Your task to perform on an android device: open app "Google Home" (install if not already installed) Image 0: 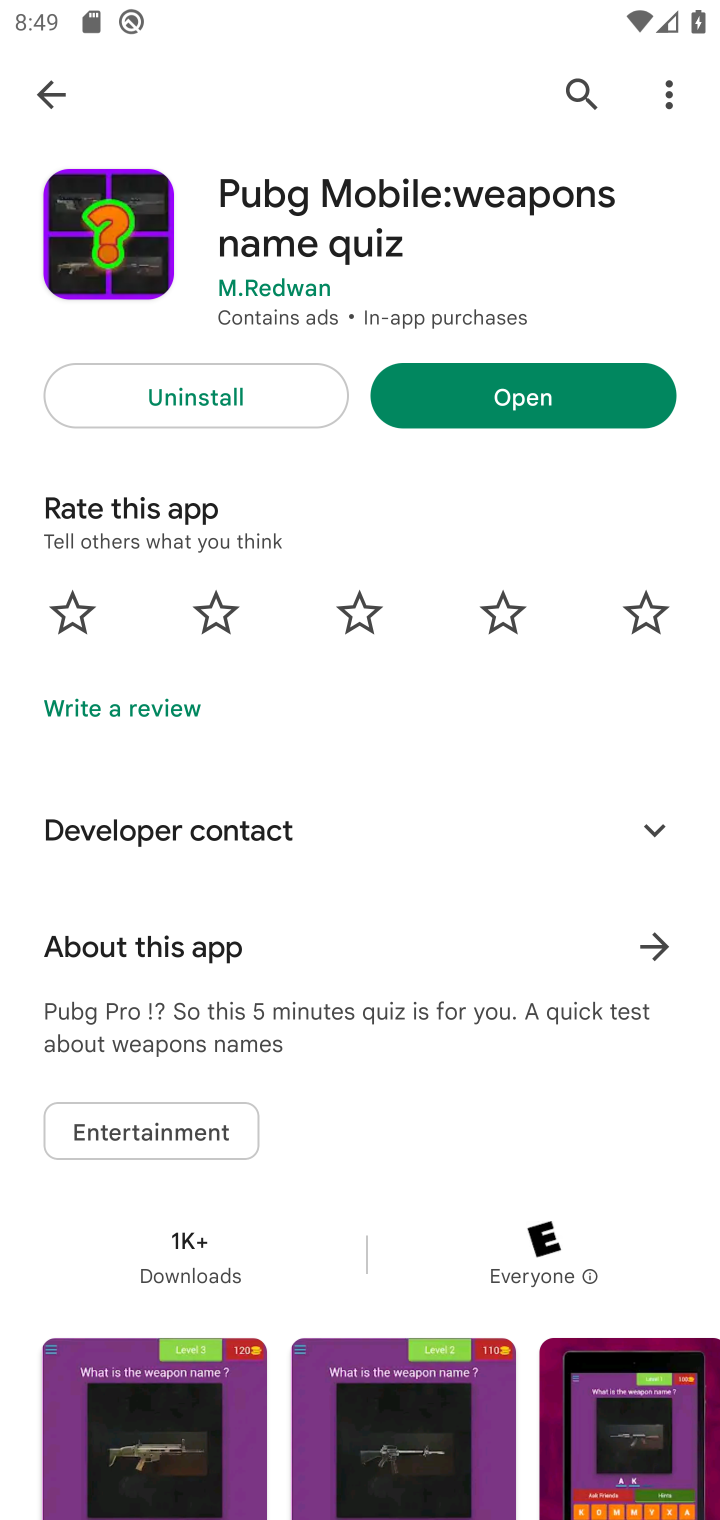
Step 0: press home button
Your task to perform on an android device: open app "Google Home" (install if not already installed) Image 1: 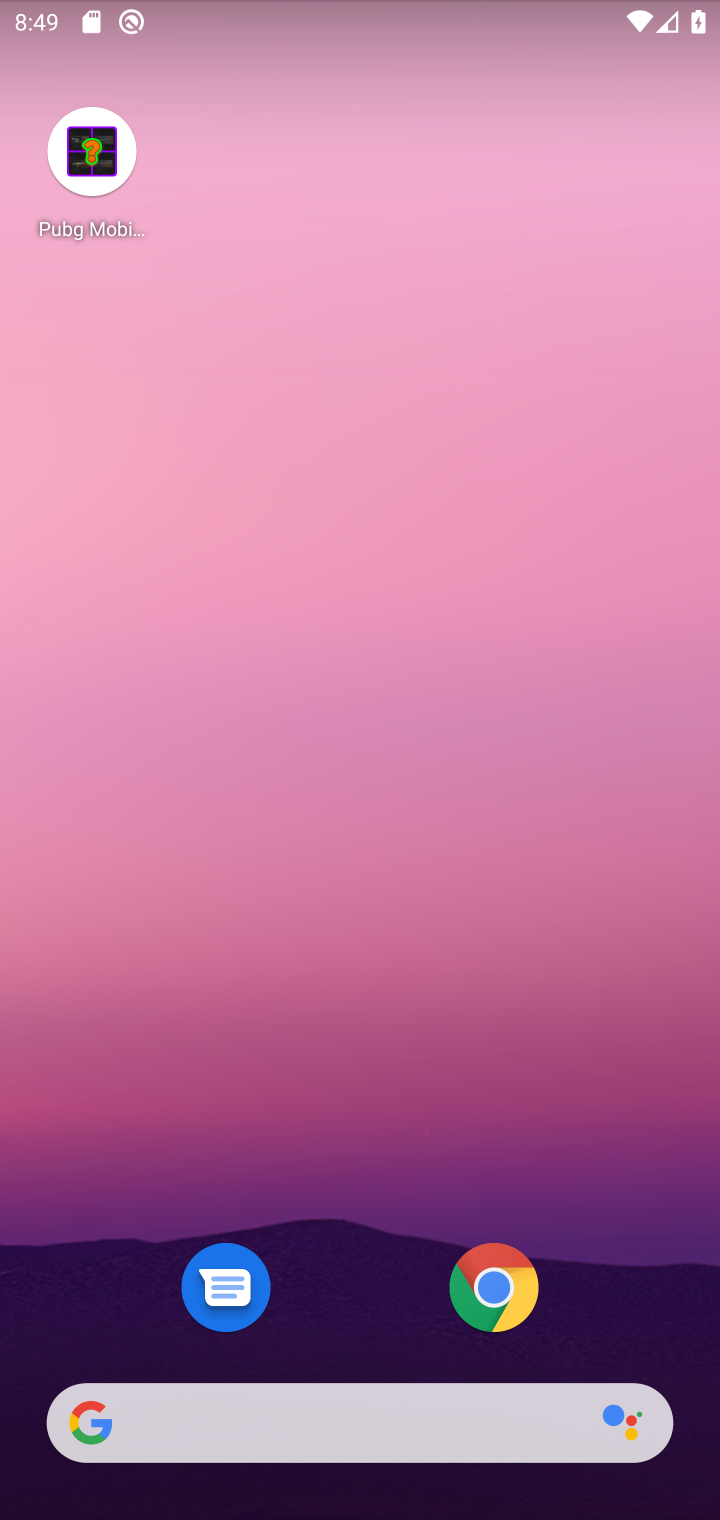
Step 1: press home button
Your task to perform on an android device: open app "Google Home" (install if not already installed) Image 2: 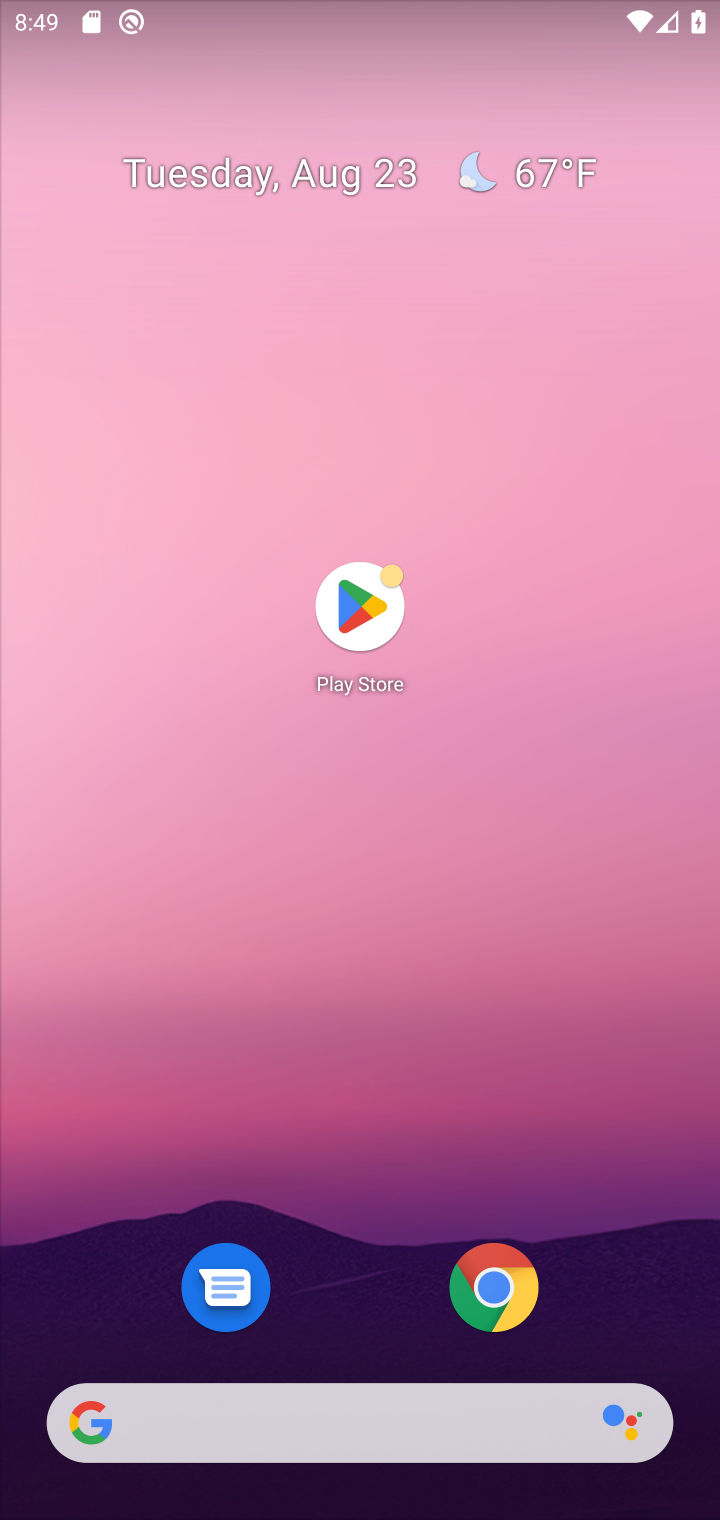
Step 2: click (353, 612)
Your task to perform on an android device: open app "Google Home" (install if not already installed) Image 3: 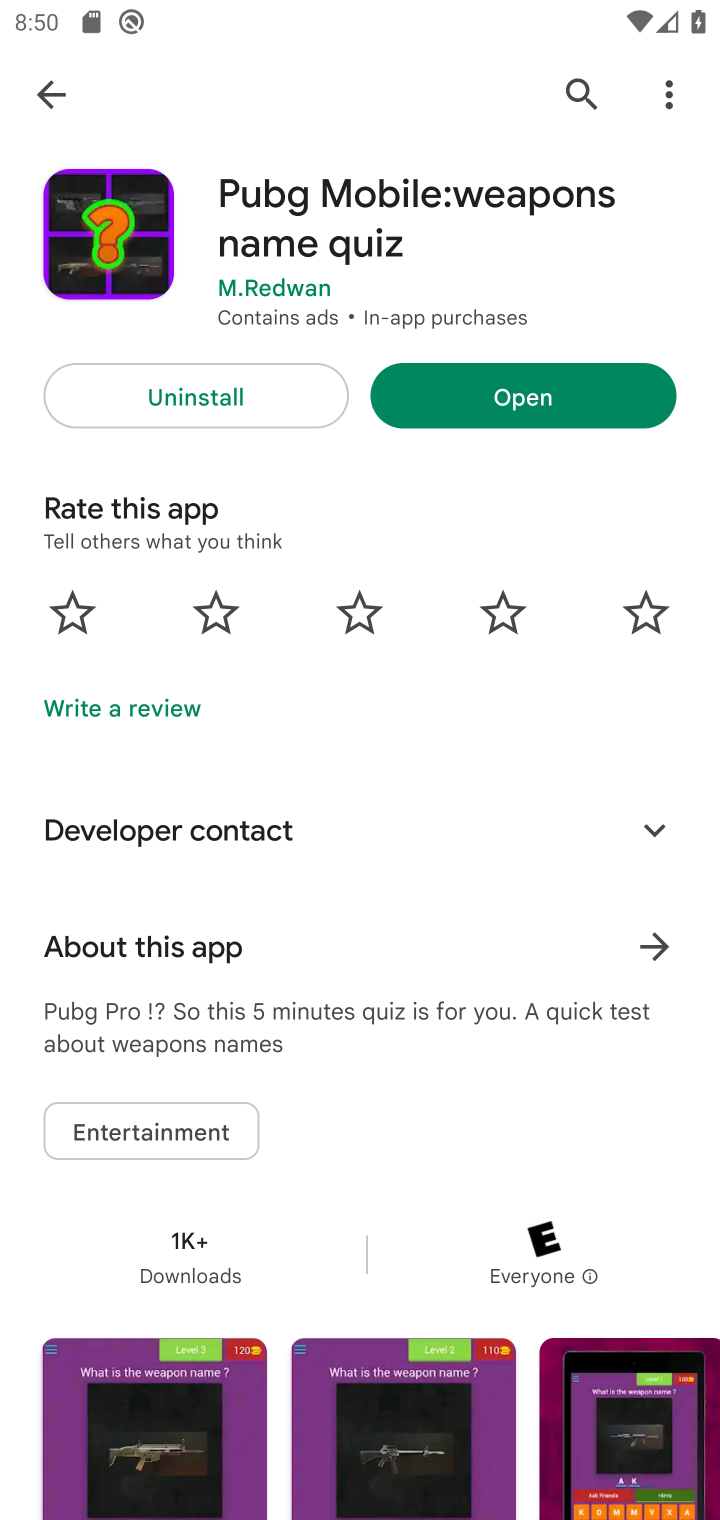
Step 3: click (576, 87)
Your task to perform on an android device: open app "Google Home" (install if not already installed) Image 4: 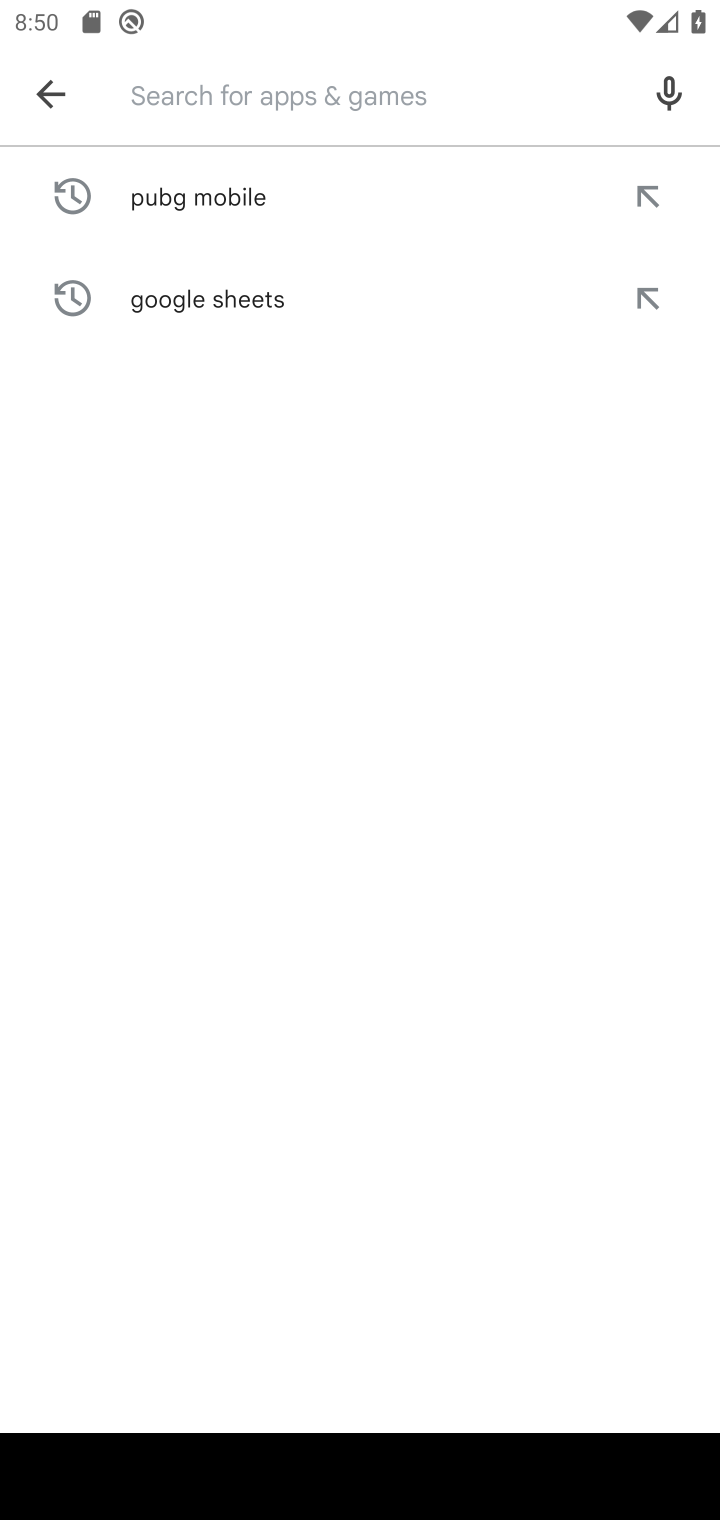
Step 4: type "Google Home"
Your task to perform on an android device: open app "Google Home" (install if not already installed) Image 5: 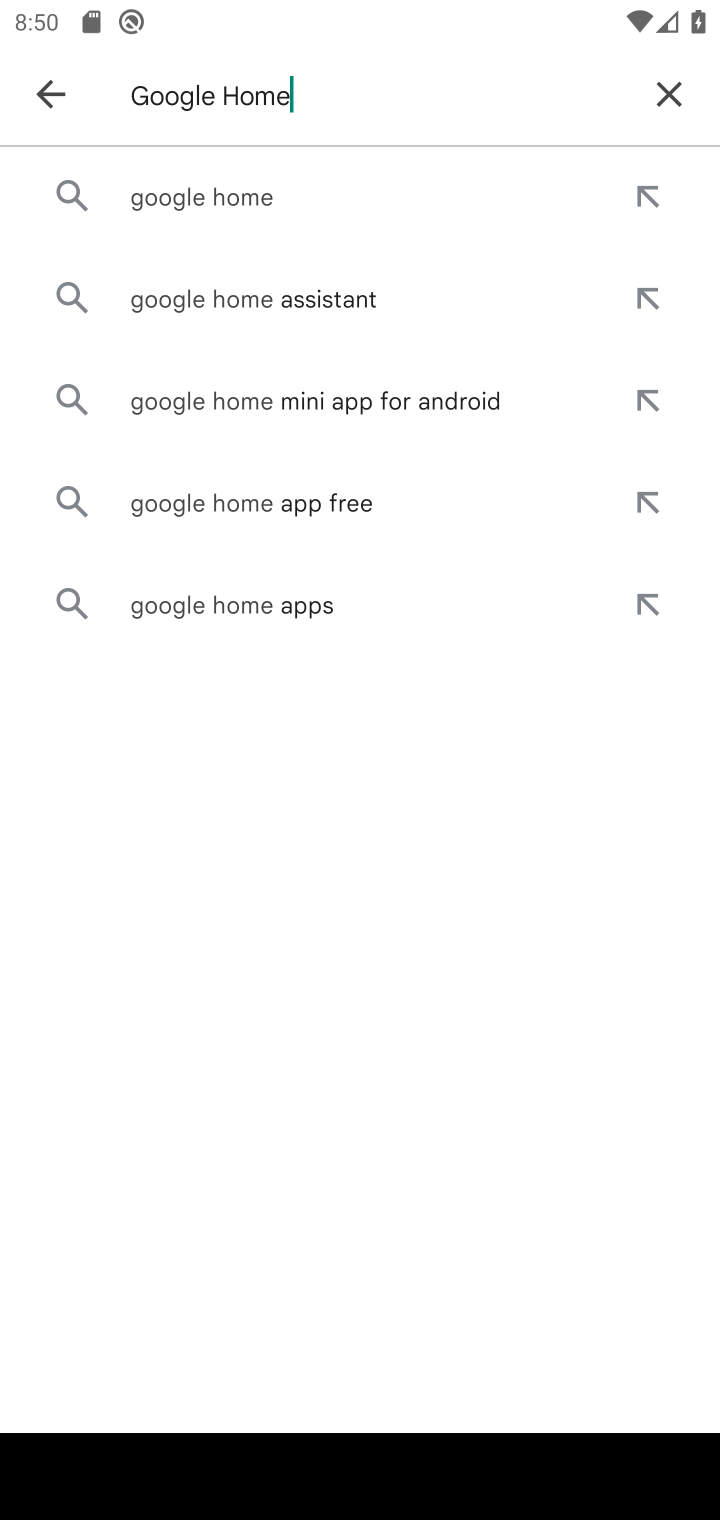
Step 5: click (263, 196)
Your task to perform on an android device: open app "Google Home" (install if not already installed) Image 6: 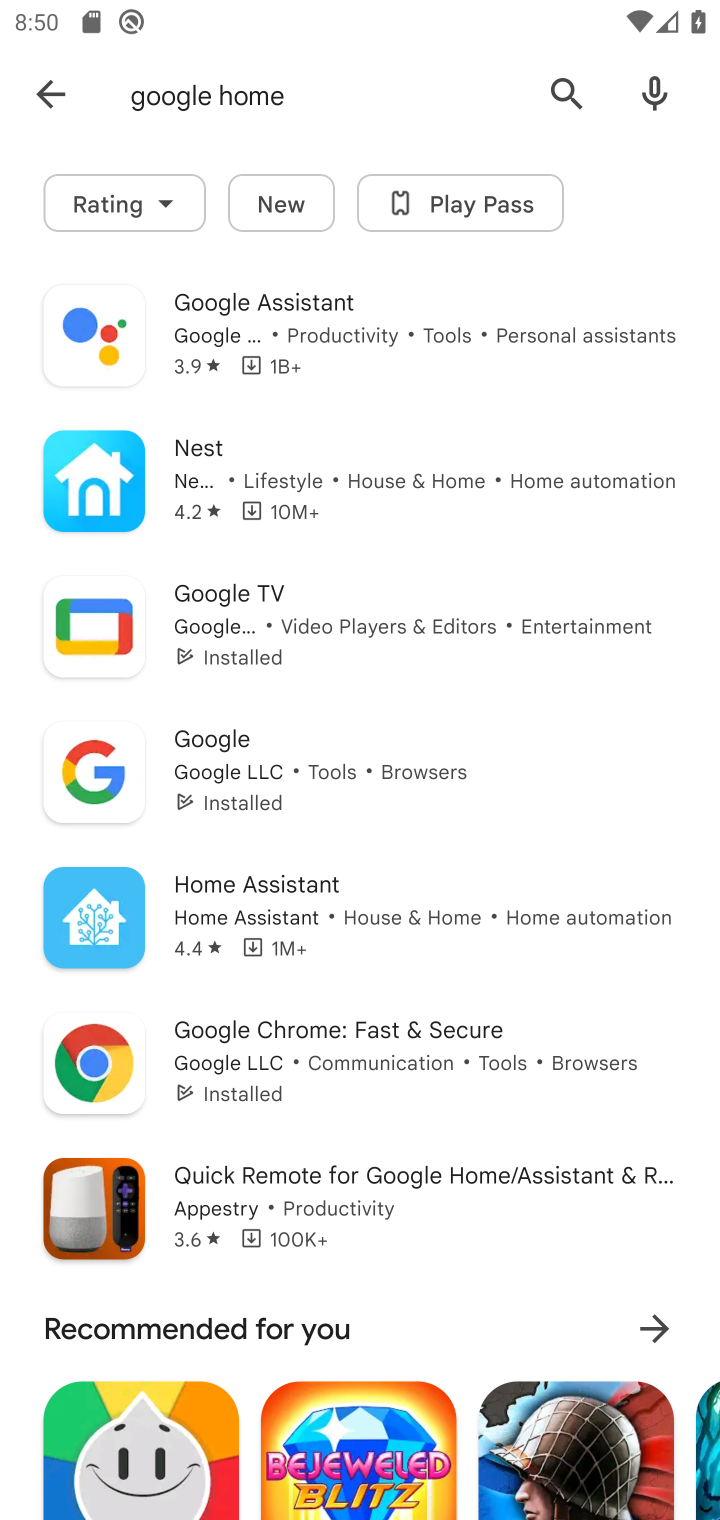
Step 6: task complete